Your task to perform on an android device: When is my next meeting? Image 0: 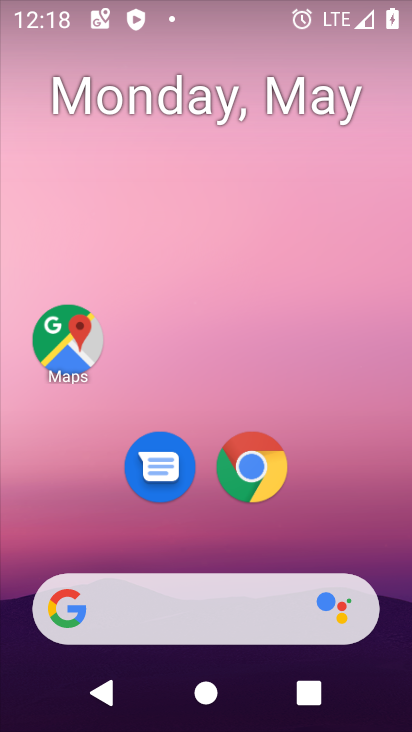
Step 0: drag from (375, 567) to (385, 479)
Your task to perform on an android device: When is my next meeting? Image 1: 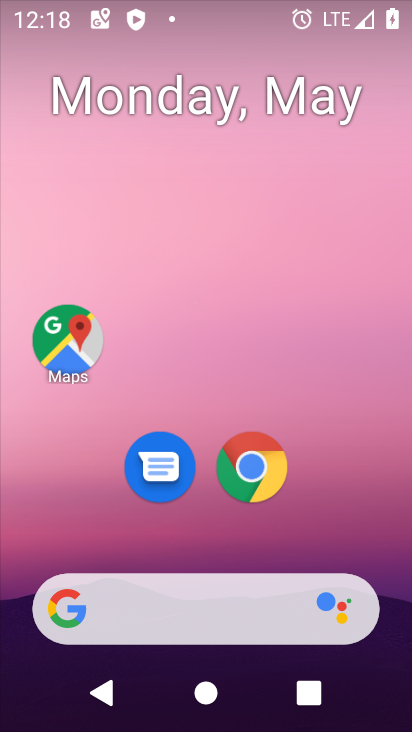
Step 1: drag from (364, 517) to (312, 7)
Your task to perform on an android device: When is my next meeting? Image 2: 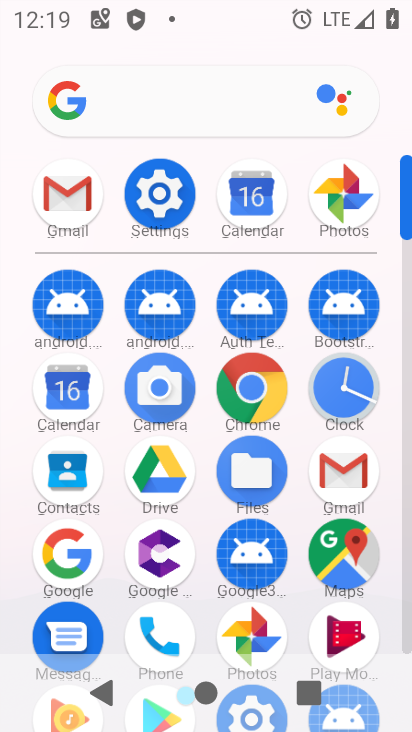
Step 2: click (255, 201)
Your task to perform on an android device: When is my next meeting? Image 3: 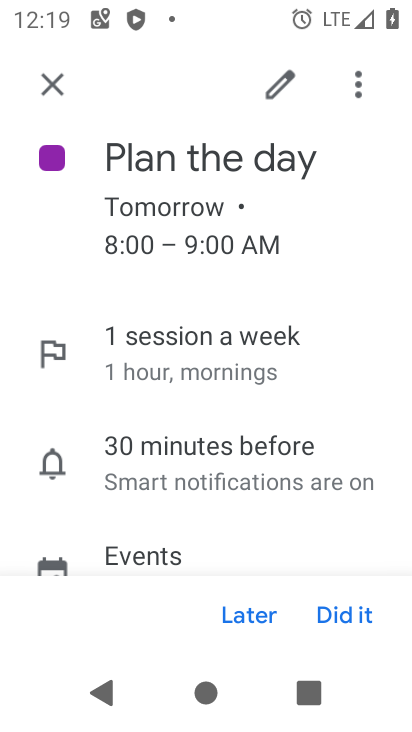
Step 3: click (46, 87)
Your task to perform on an android device: When is my next meeting? Image 4: 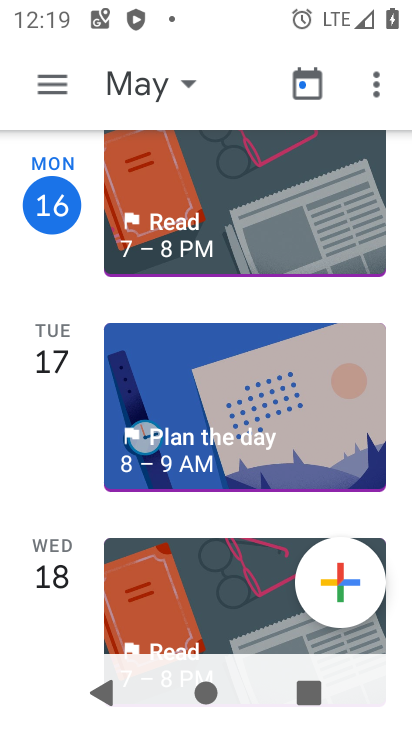
Step 4: drag from (190, 512) to (207, 166)
Your task to perform on an android device: When is my next meeting? Image 5: 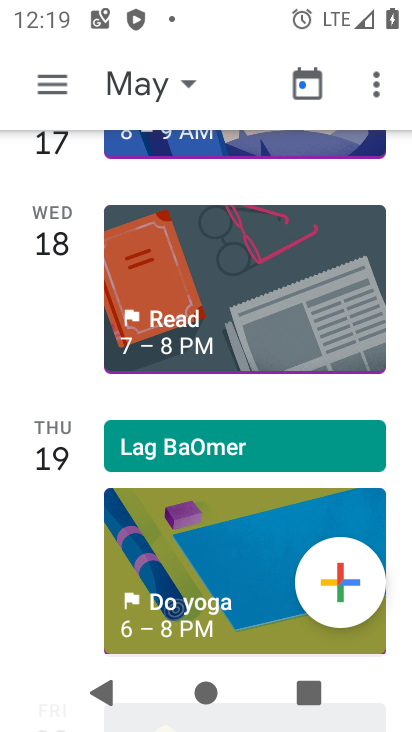
Step 5: drag from (211, 510) to (252, 105)
Your task to perform on an android device: When is my next meeting? Image 6: 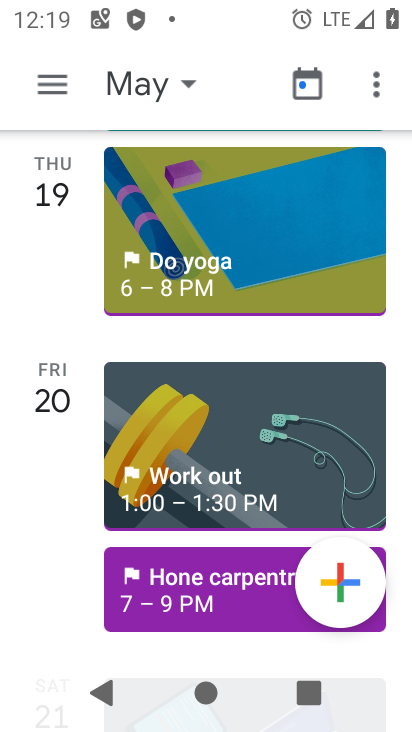
Step 6: drag from (213, 502) to (255, 149)
Your task to perform on an android device: When is my next meeting? Image 7: 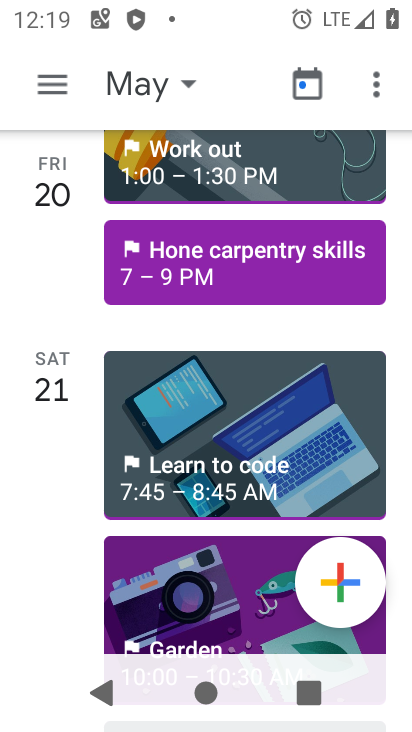
Step 7: click (210, 280)
Your task to perform on an android device: When is my next meeting? Image 8: 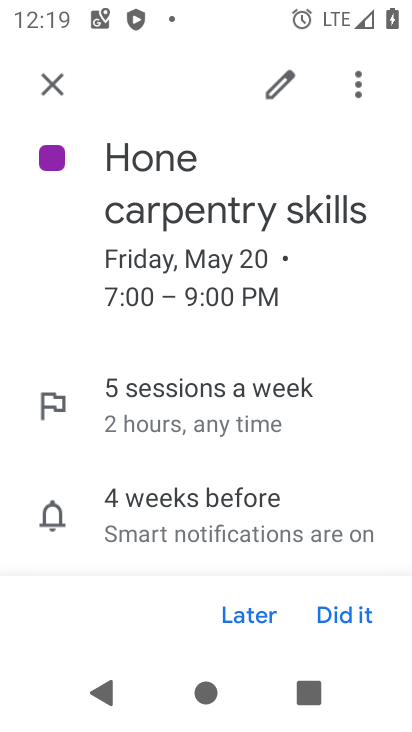
Step 8: task complete